Your task to perform on an android device: toggle airplane mode Image 0: 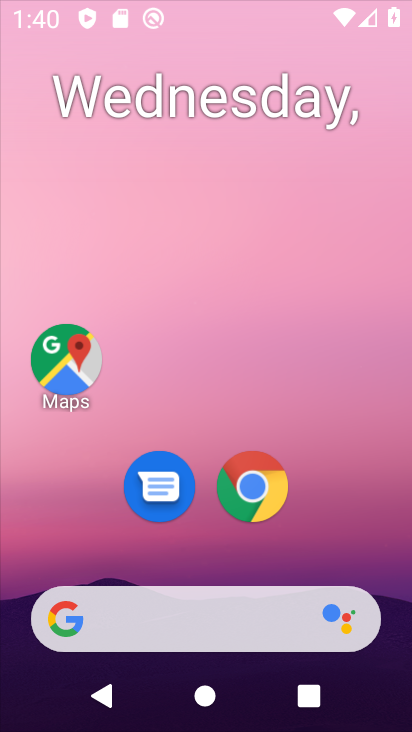
Step 0: drag from (320, 484) to (411, 626)
Your task to perform on an android device: toggle airplane mode Image 1: 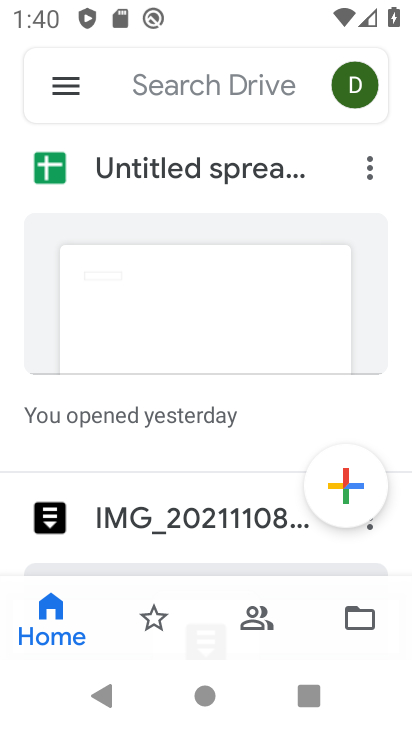
Step 1: press home button
Your task to perform on an android device: toggle airplane mode Image 2: 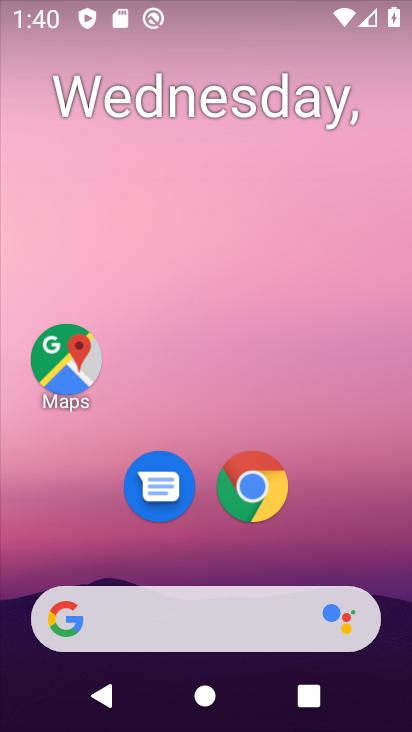
Step 2: drag from (158, 587) to (236, 73)
Your task to perform on an android device: toggle airplane mode Image 3: 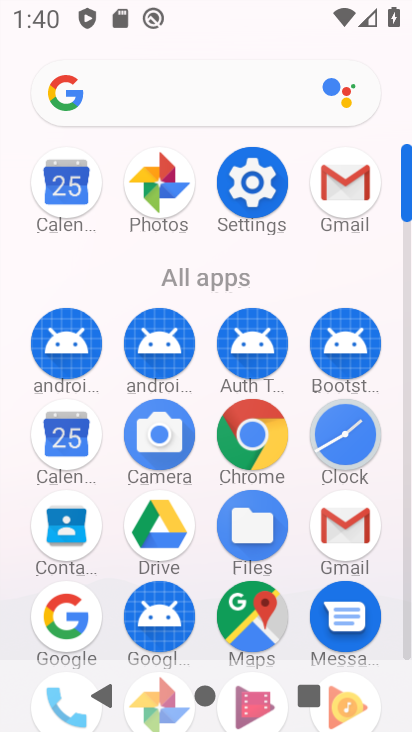
Step 3: click (254, 186)
Your task to perform on an android device: toggle airplane mode Image 4: 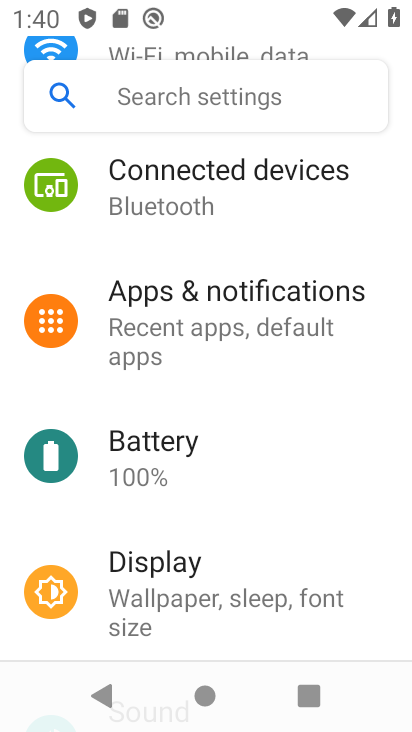
Step 4: drag from (319, 231) to (274, 702)
Your task to perform on an android device: toggle airplane mode Image 5: 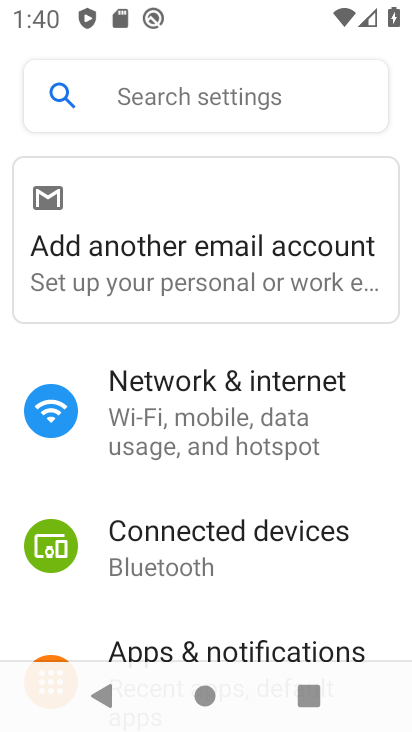
Step 5: click (295, 411)
Your task to perform on an android device: toggle airplane mode Image 6: 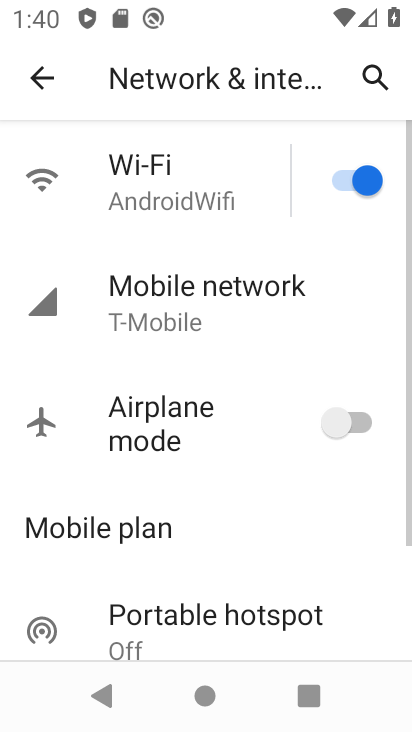
Step 6: click (370, 427)
Your task to perform on an android device: toggle airplane mode Image 7: 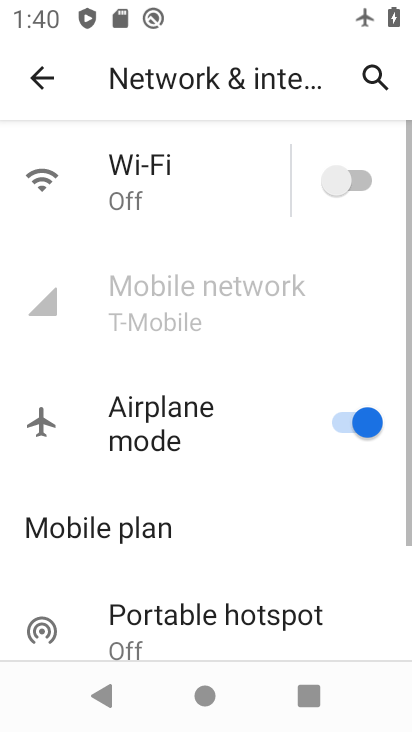
Step 7: task complete